Your task to perform on an android device: Open the web browser Image 0: 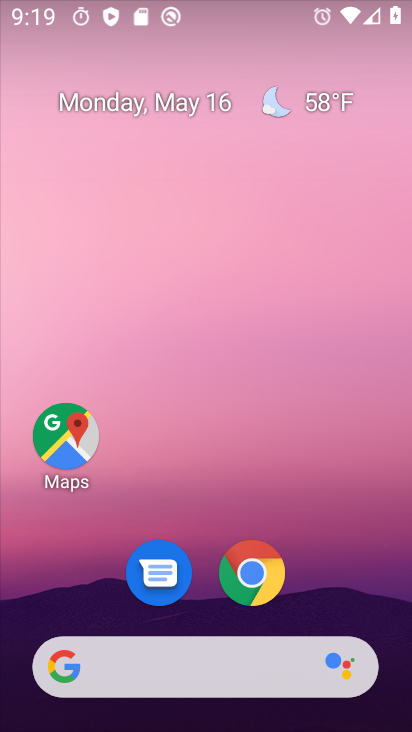
Step 0: drag from (346, 665) to (255, 220)
Your task to perform on an android device: Open the web browser Image 1: 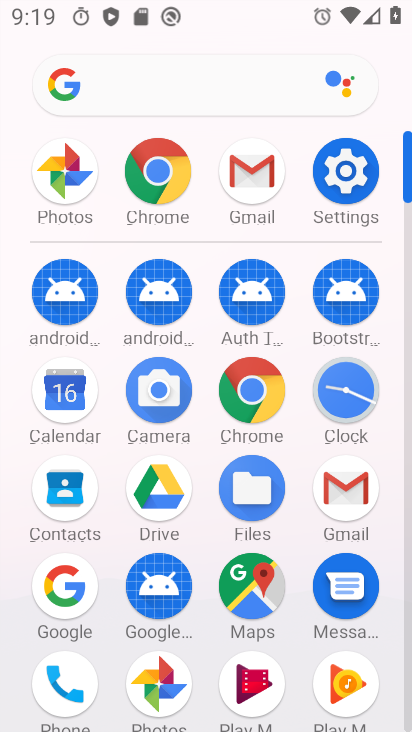
Step 1: click (161, 148)
Your task to perform on an android device: Open the web browser Image 2: 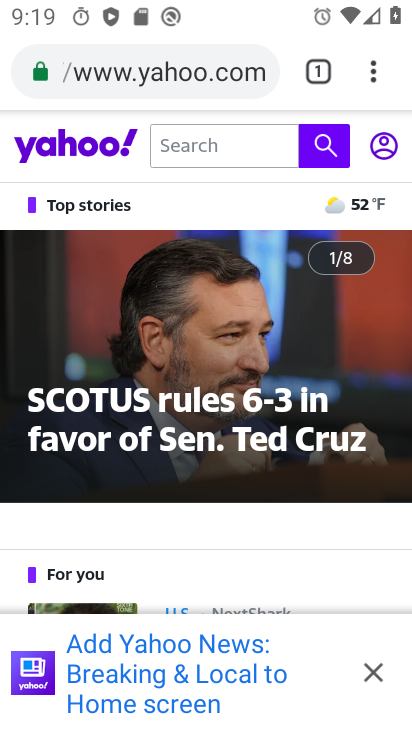
Step 2: drag from (369, 69) to (124, 137)
Your task to perform on an android device: Open the web browser Image 3: 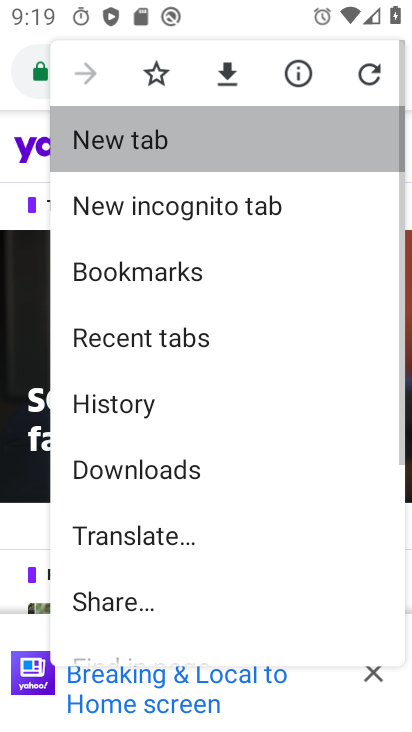
Step 3: click (124, 133)
Your task to perform on an android device: Open the web browser Image 4: 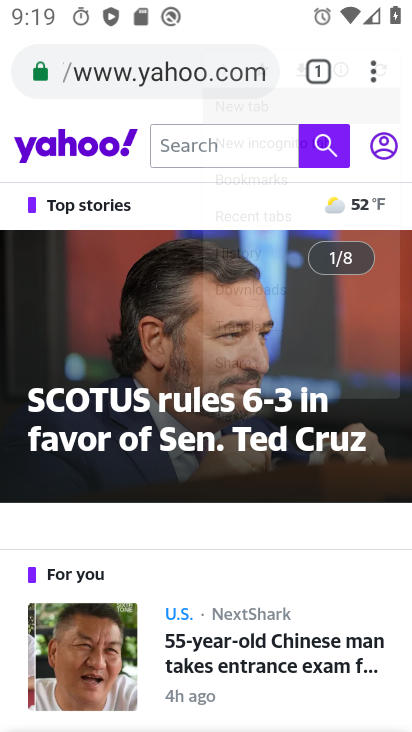
Step 4: click (124, 133)
Your task to perform on an android device: Open the web browser Image 5: 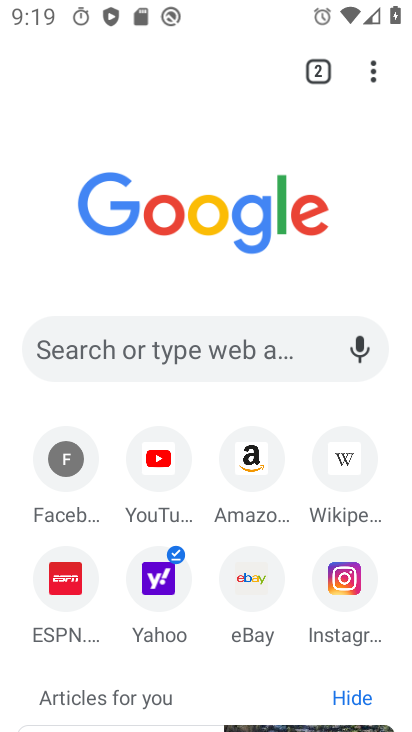
Step 5: click (91, 357)
Your task to perform on an android device: Open the web browser Image 6: 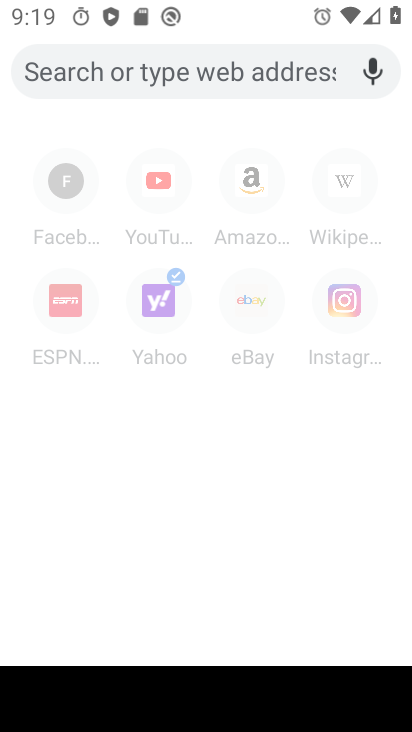
Step 6: task complete